Your task to perform on an android device: turn off sleep mode Image 0: 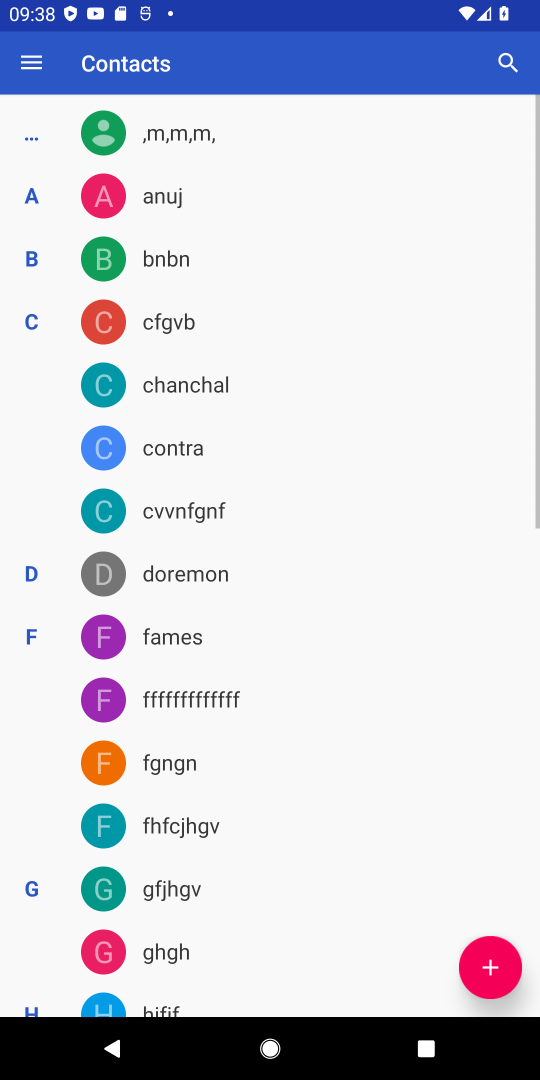
Step 0: press home button
Your task to perform on an android device: turn off sleep mode Image 1: 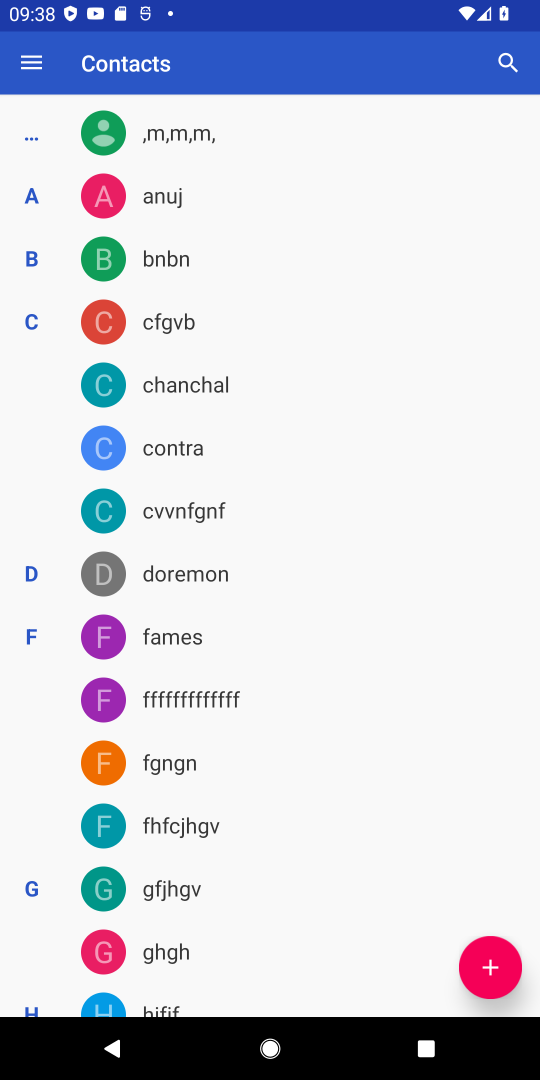
Step 1: press home button
Your task to perform on an android device: turn off sleep mode Image 2: 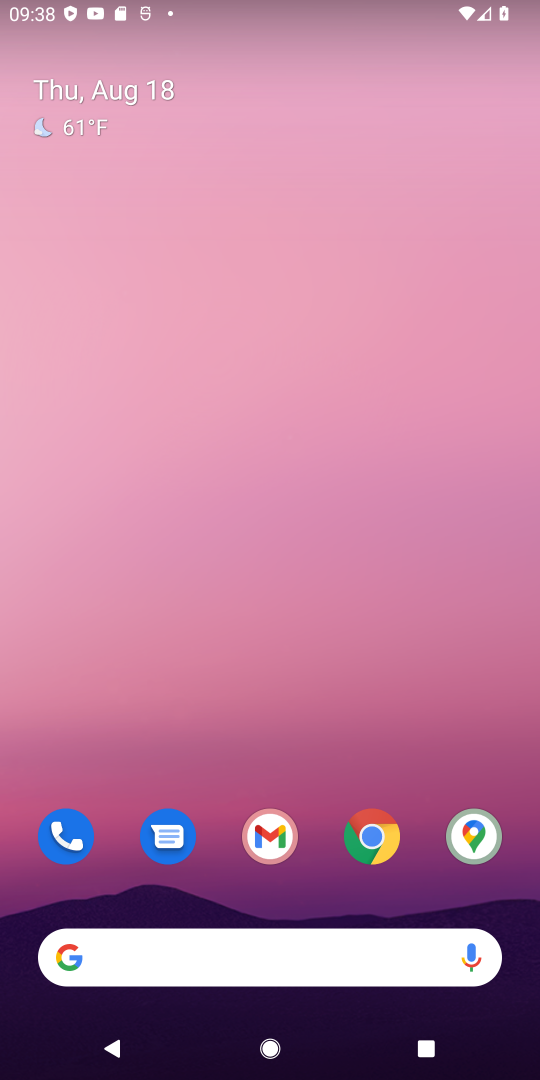
Step 2: drag from (354, 673) to (307, 4)
Your task to perform on an android device: turn off sleep mode Image 3: 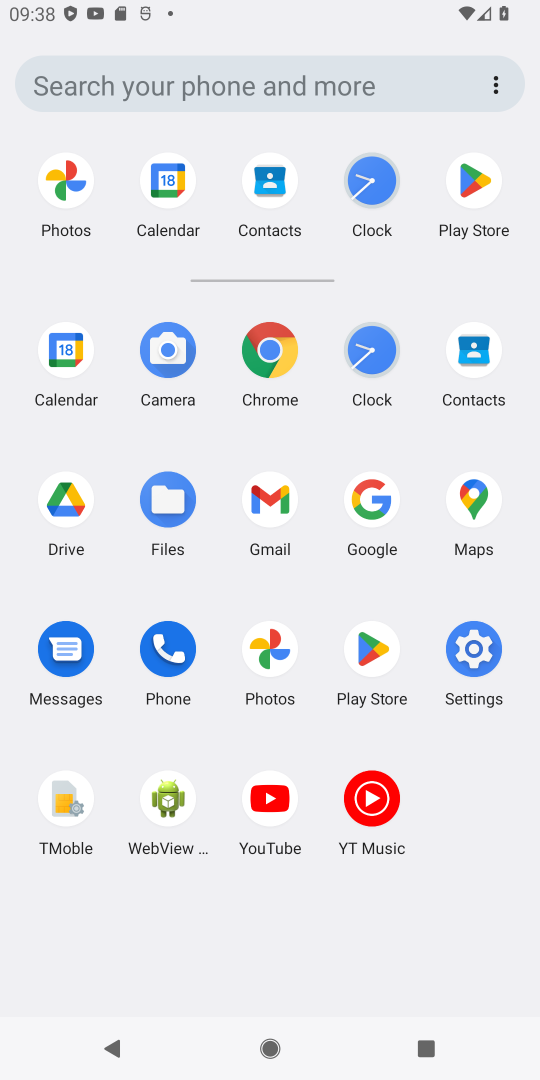
Step 3: click (498, 647)
Your task to perform on an android device: turn off sleep mode Image 4: 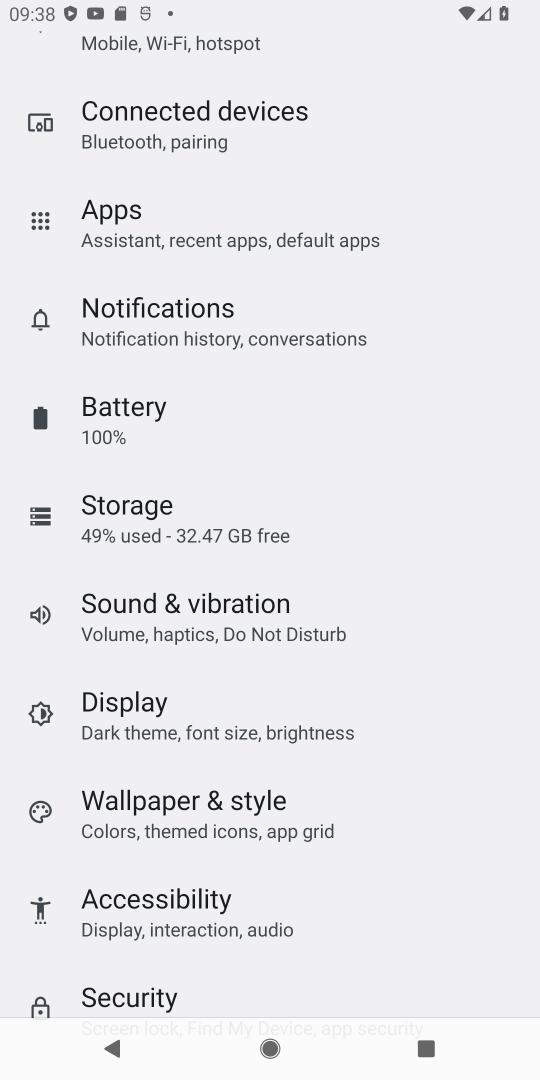
Step 4: drag from (336, 295) to (256, 943)
Your task to perform on an android device: turn off sleep mode Image 5: 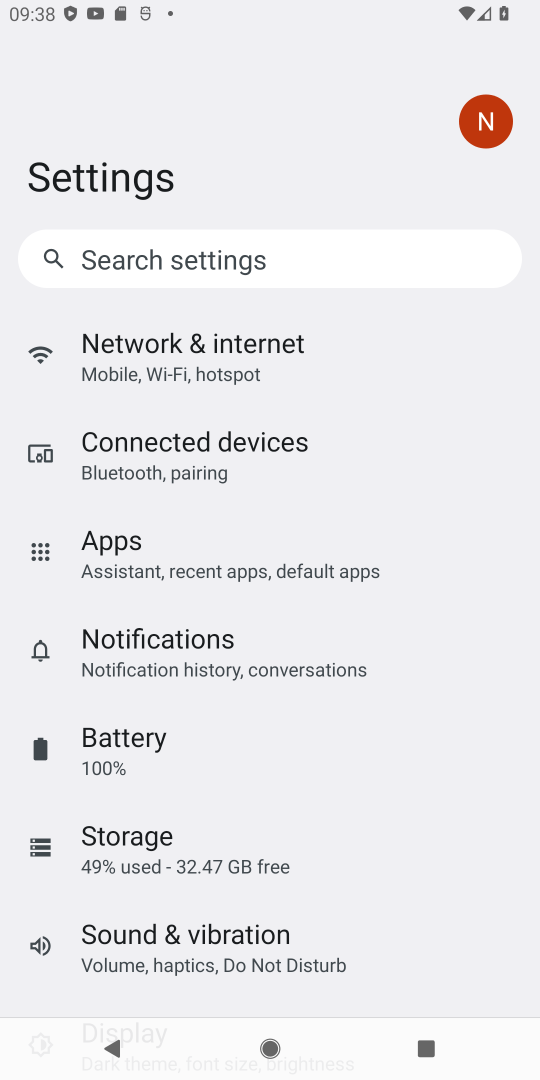
Step 5: drag from (295, 789) to (347, 210)
Your task to perform on an android device: turn off sleep mode Image 6: 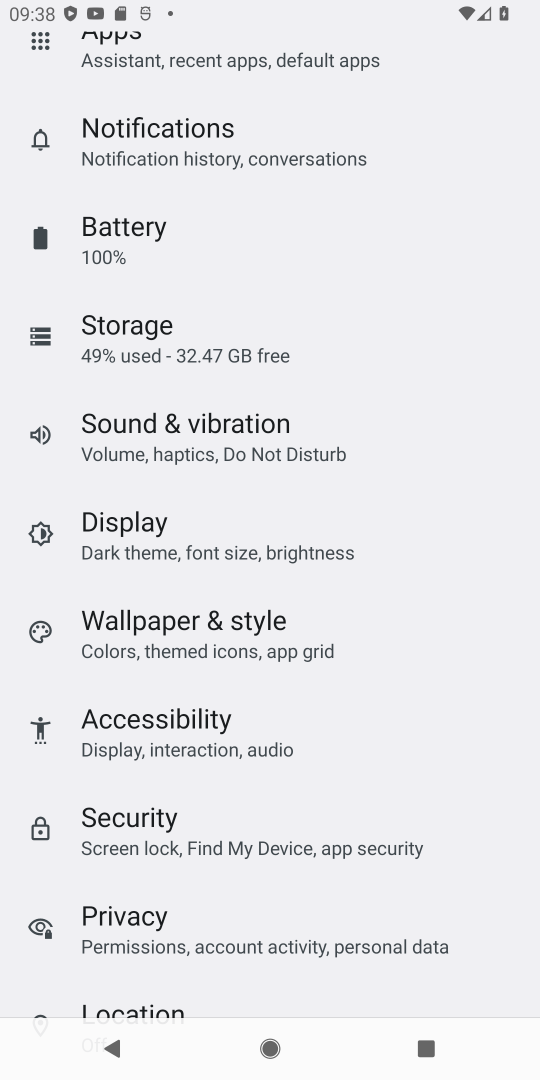
Step 6: drag from (248, 250) to (259, 425)
Your task to perform on an android device: turn off sleep mode Image 7: 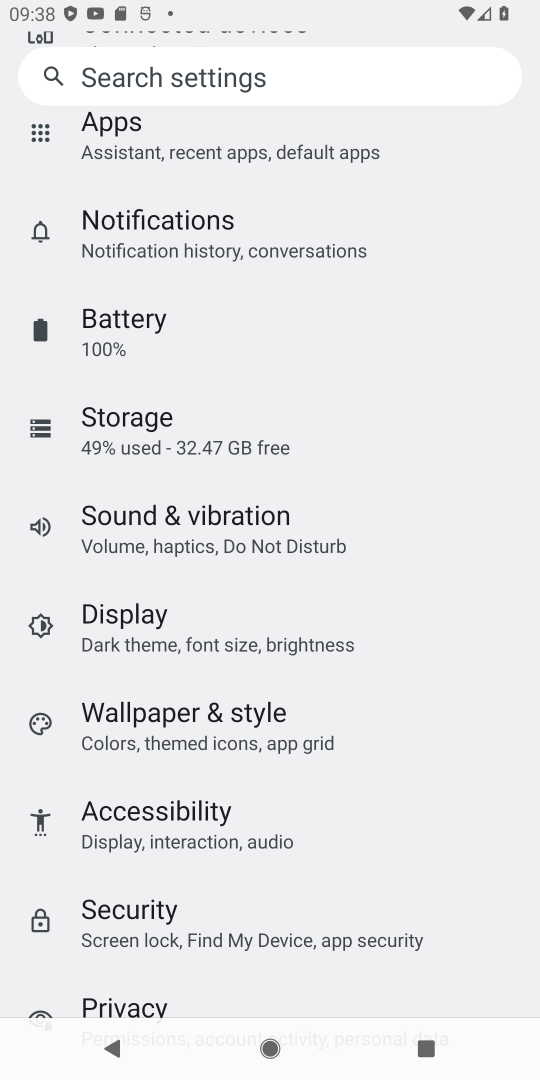
Step 7: click (163, 613)
Your task to perform on an android device: turn off sleep mode Image 8: 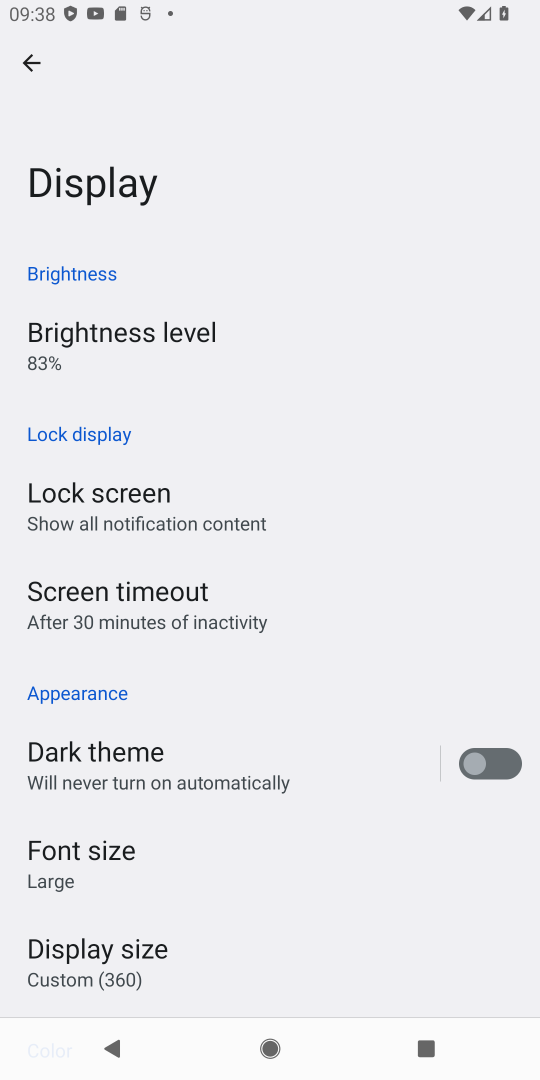
Step 8: click (175, 605)
Your task to perform on an android device: turn off sleep mode Image 9: 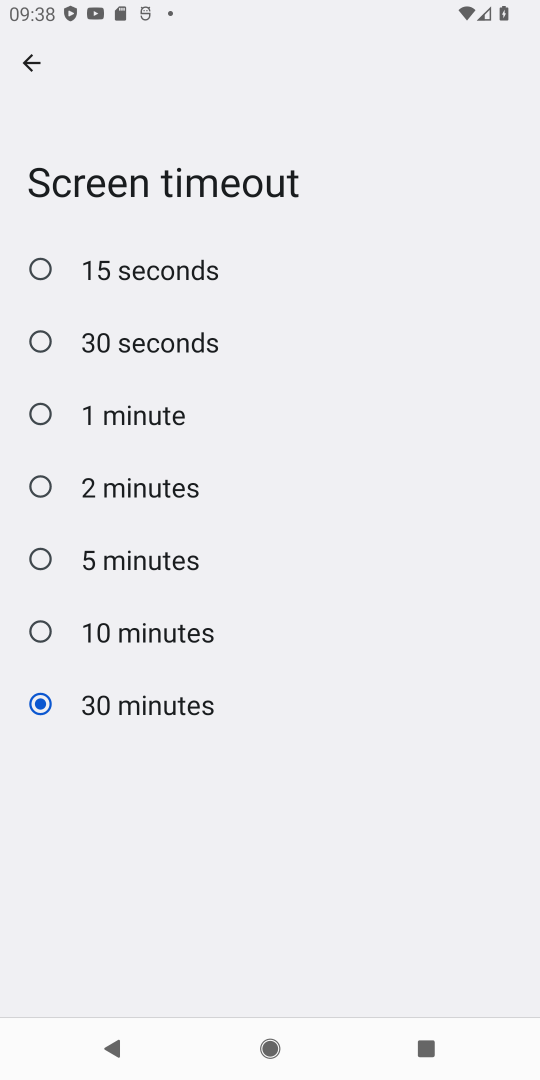
Step 9: task complete